Your task to perform on an android device: Open Google Chrome Image 0: 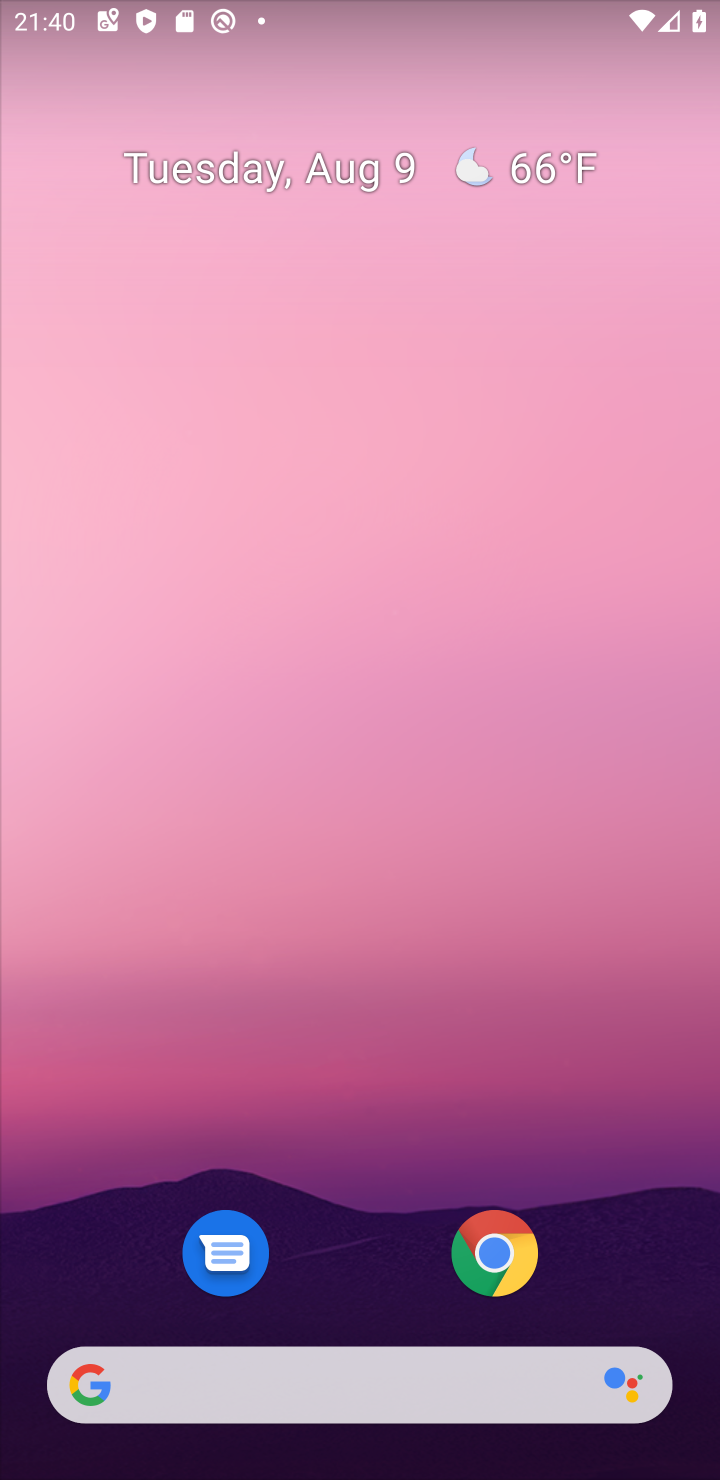
Step 0: drag from (390, 626) to (496, 131)
Your task to perform on an android device: Open Google Chrome Image 1: 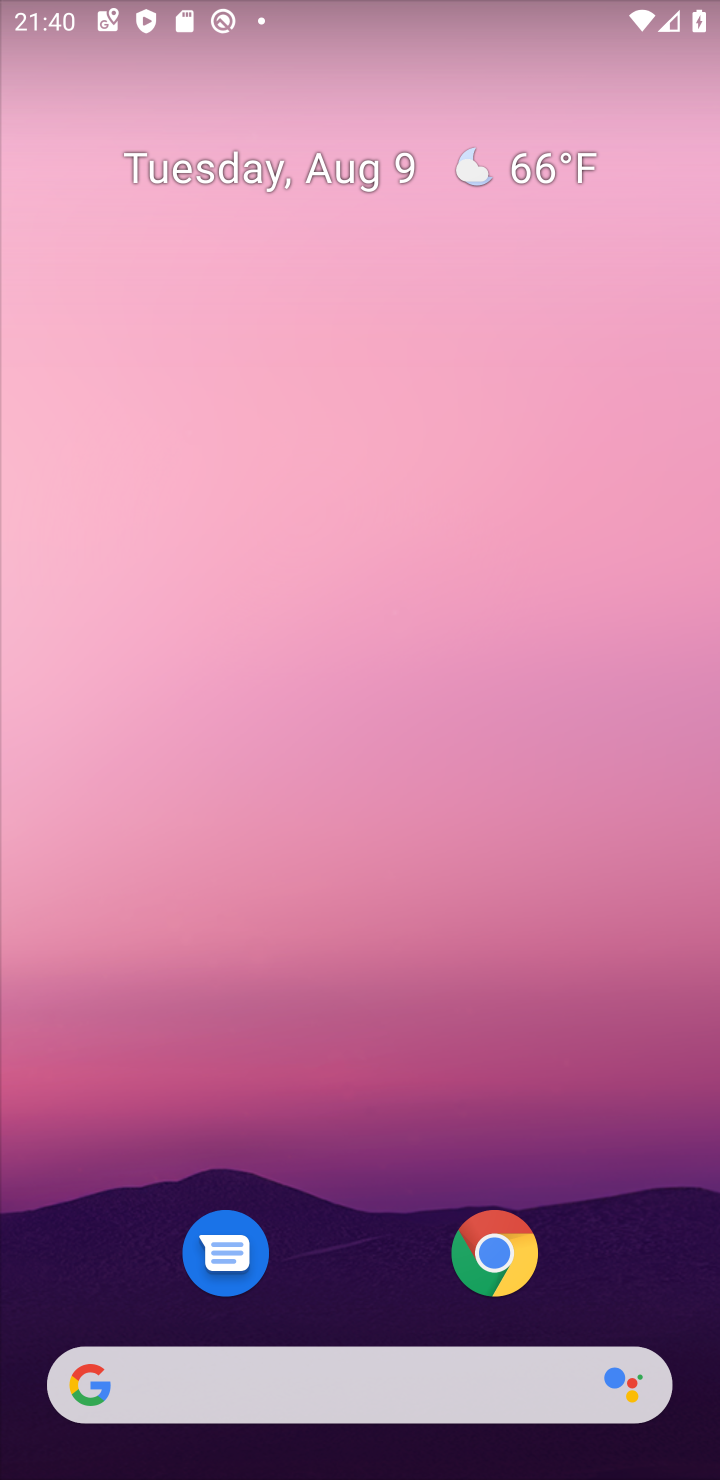
Step 1: drag from (374, 1204) to (502, 280)
Your task to perform on an android device: Open Google Chrome Image 2: 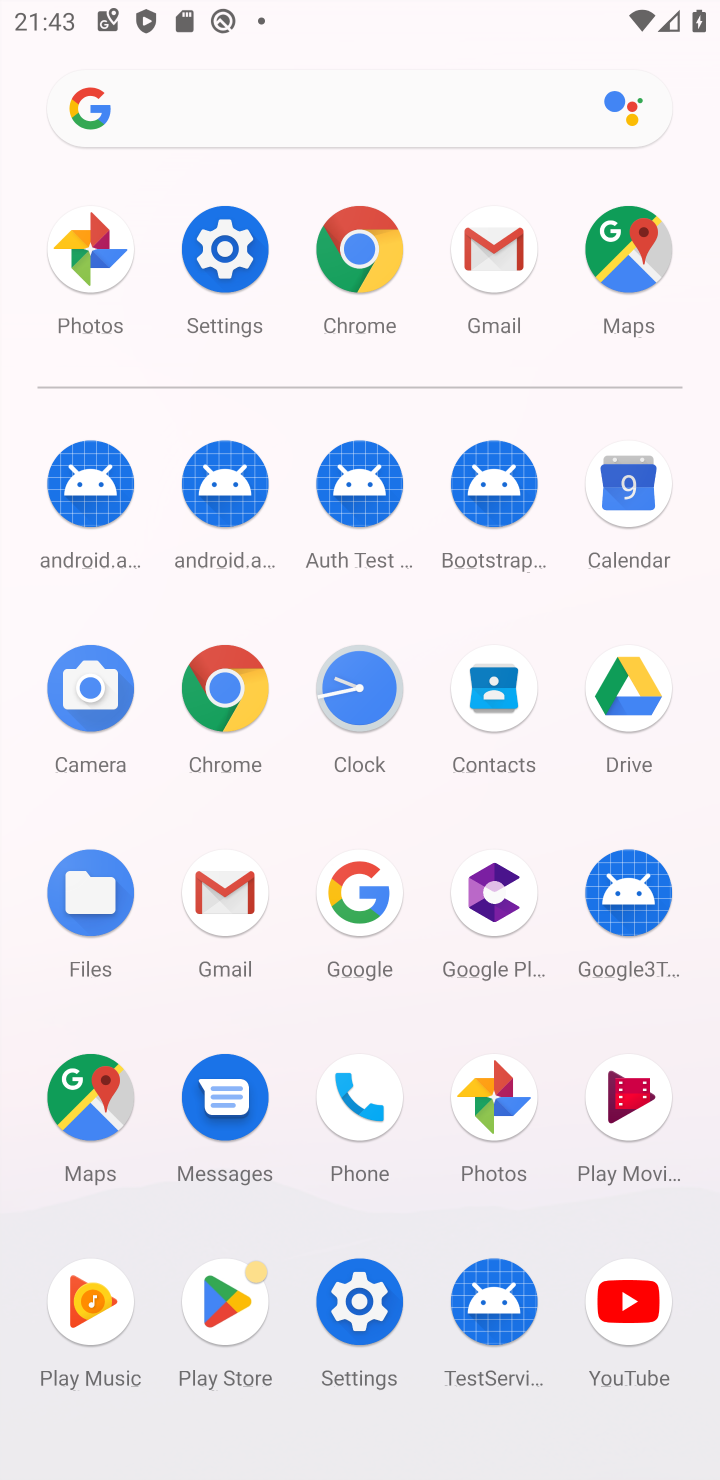
Step 2: click (234, 698)
Your task to perform on an android device: Open Google Chrome Image 3: 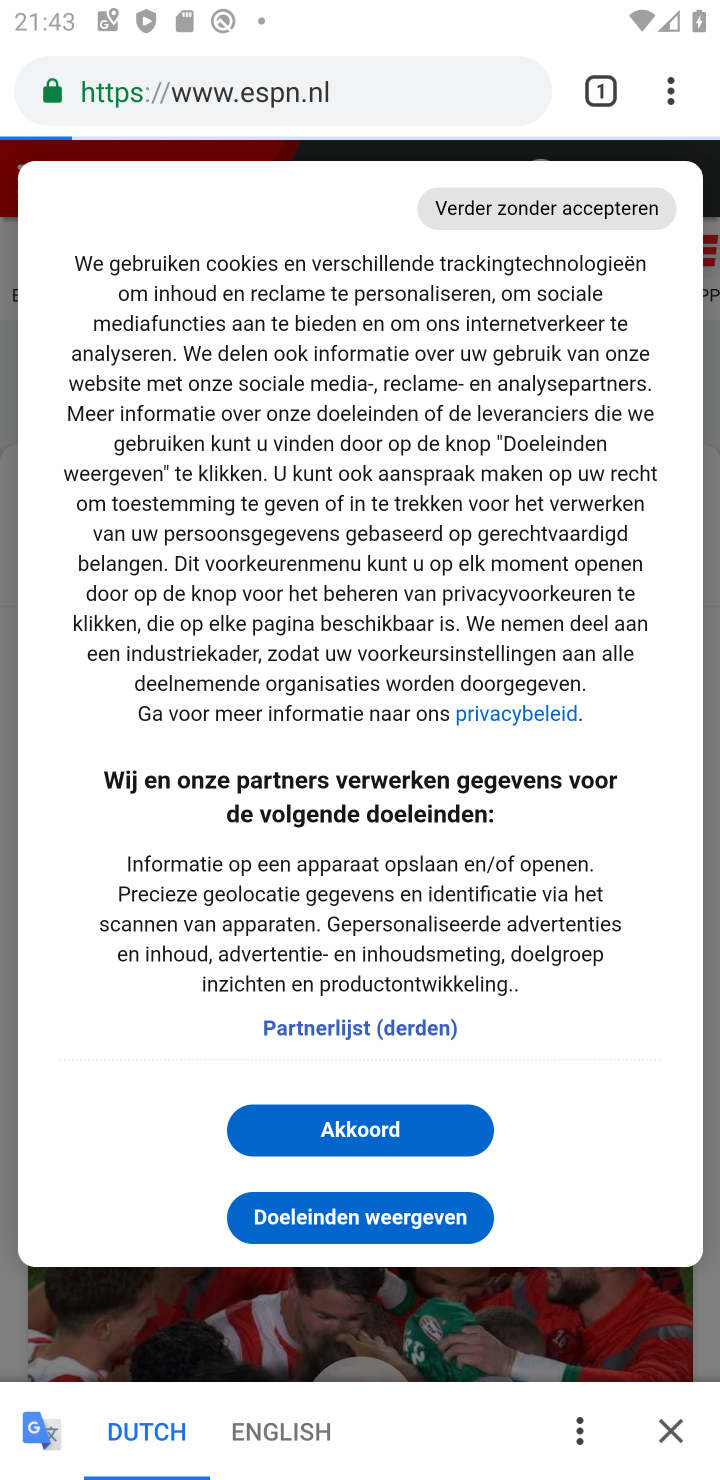
Step 3: task complete